Your task to perform on an android device: install app "Flipkart Online Shopping App" Image 0: 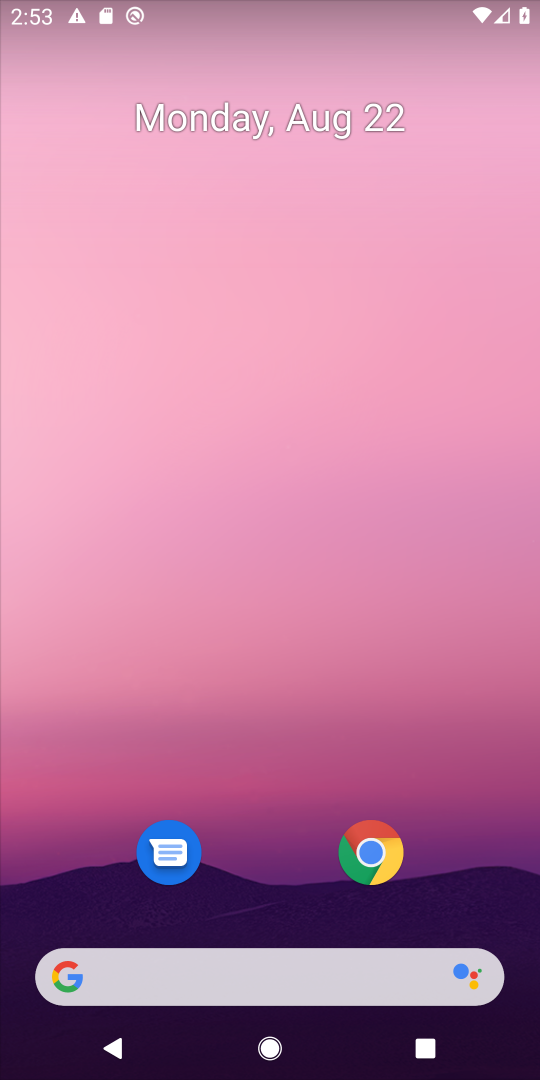
Step 0: drag from (268, 944) to (260, 71)
Your task to perform on an android device: install app "Flipkart Online Shopping App" Image 1: 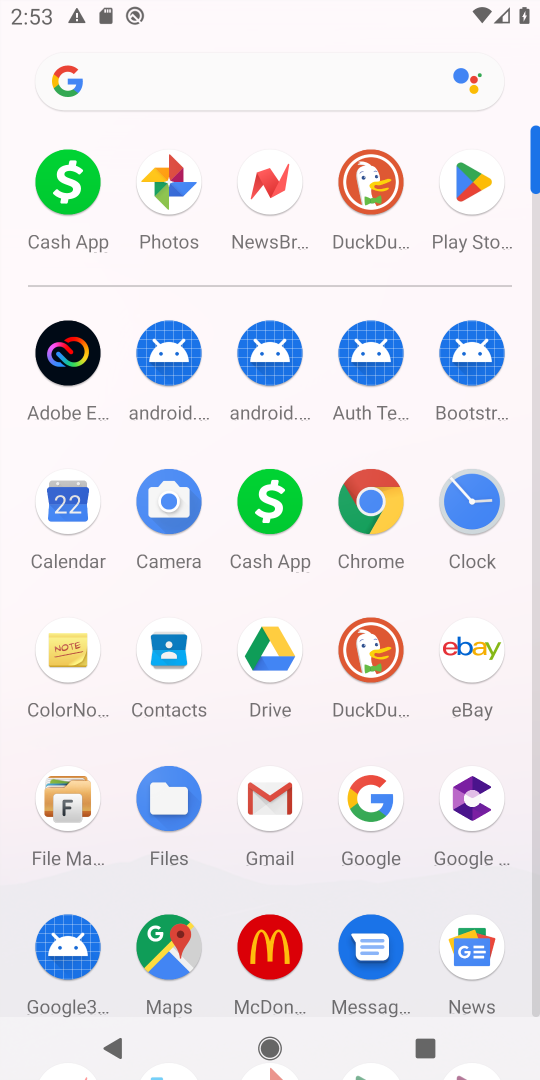
Step 1: click (470, 184)
Your task to perform on an android device: install app "Flipkart Online Shopping App" Image 2: 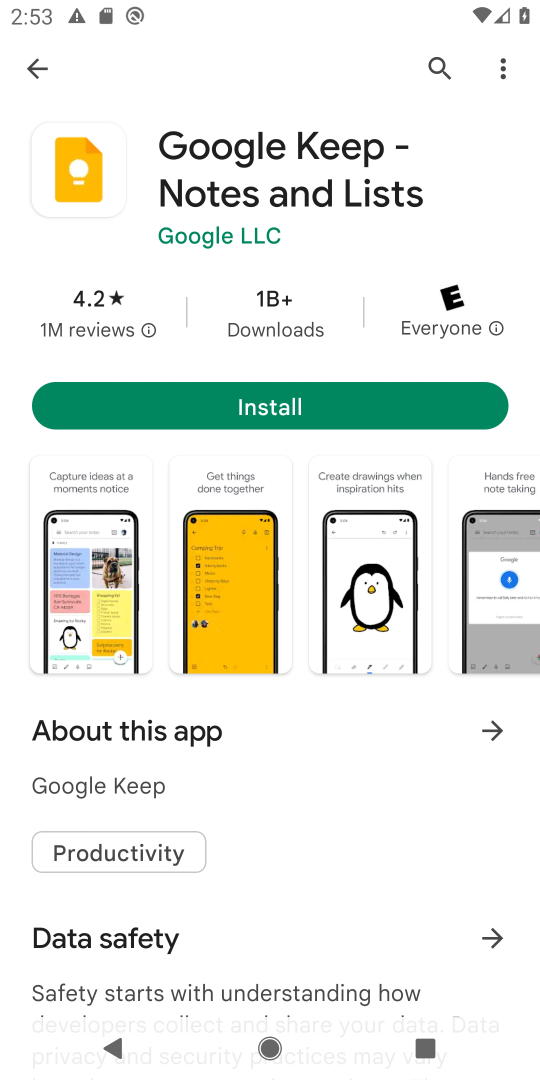
Step 2: click (436, 61)
Your task to perform on an android device: install app "Flipkart Online Shopping App" Image 3: 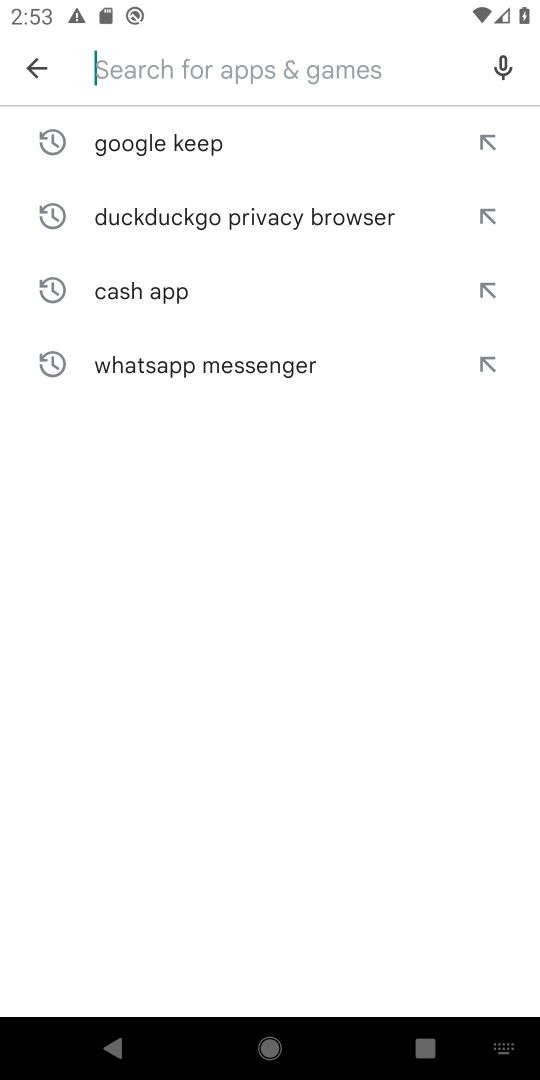
Step 3: type "Flipkart Online Shopping App"
Your task to perform on an android device: install app "Flipkart Online Shopping App" Image 4: 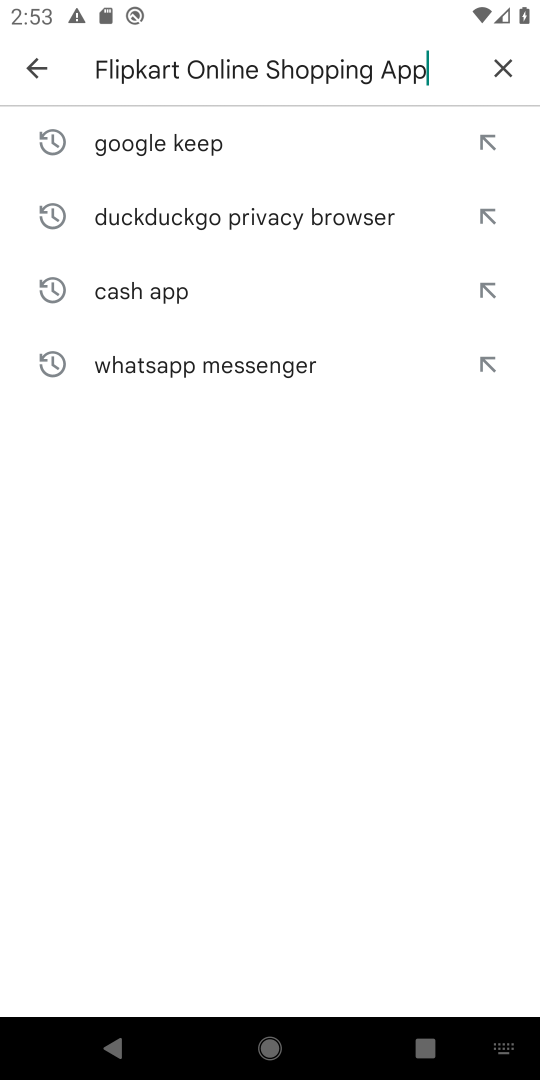
Step 4: type ""
Your task to perform on an android device: install app "Flipkart Online Shopping App" Image 5: 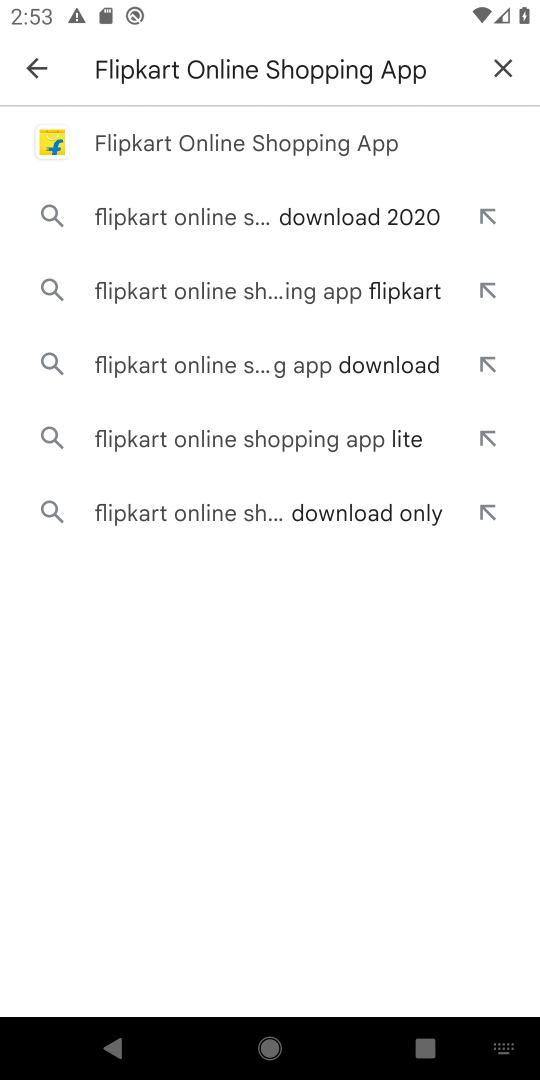
Step 5: click (273, 148)
Your task to perform on an android device: install app "Flipkart Online Shopping App" Image 6: 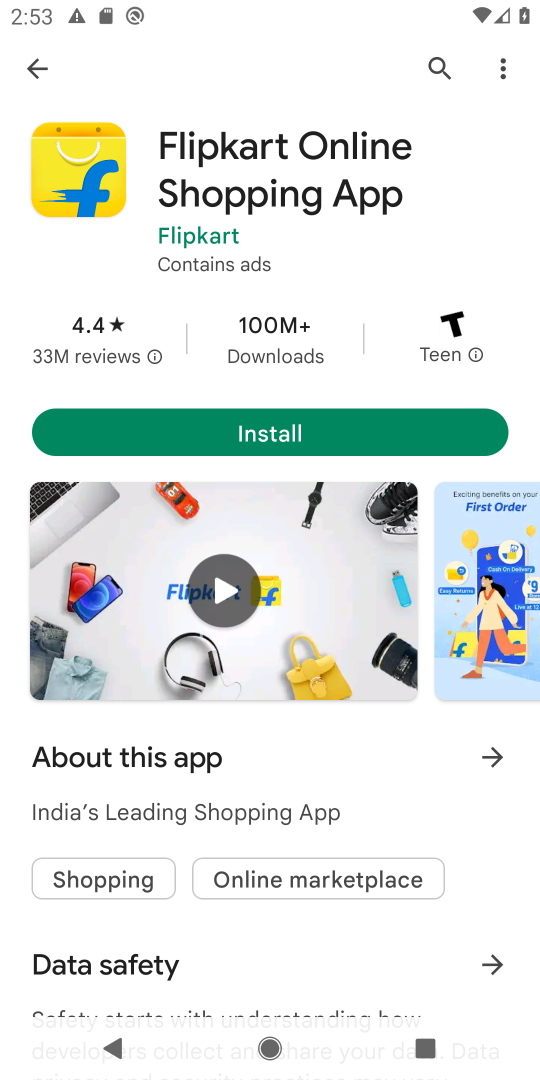
Step 6: click (303, 428)
Your task to perform on an android device: install app "Flipkart Online Shopping App" Image 7: 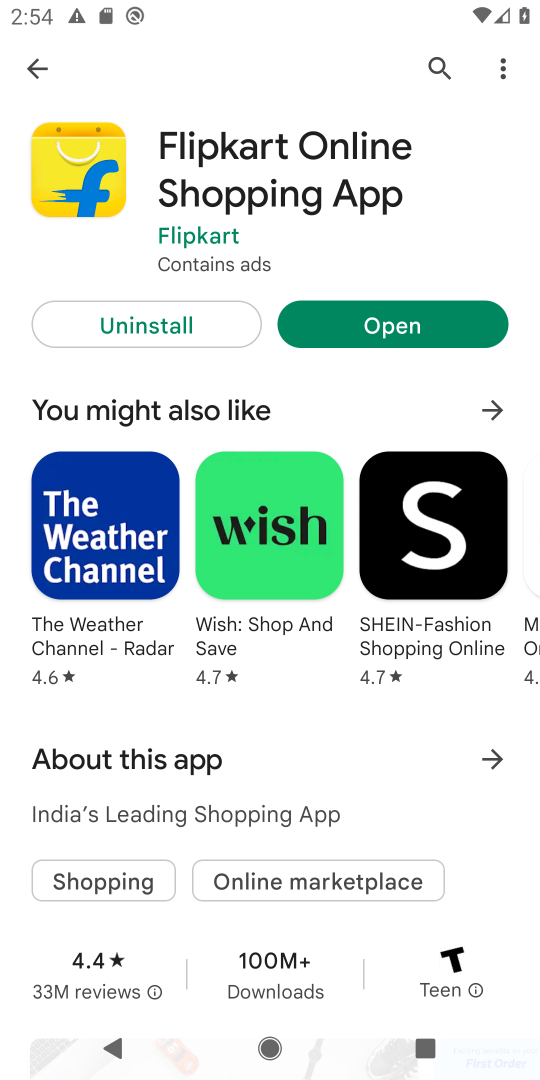
Step 7: task complete